Your task to perform on an android device: Open calendar and show me the fourth week of next month Image 0: 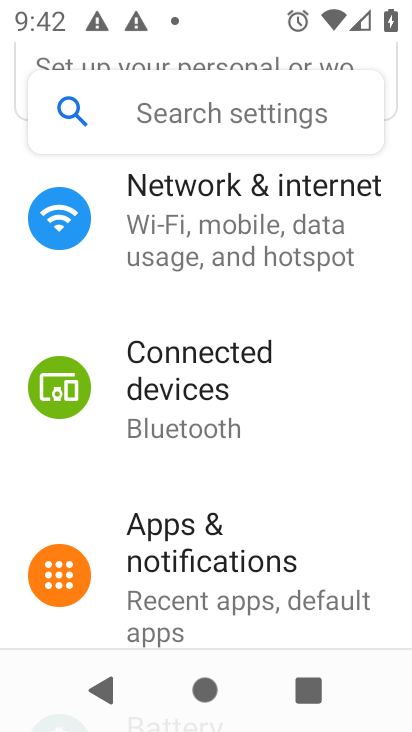
Step 0: press home button
Your task to perform on an android device: Open calendar and show me the fourth week of next month Image 1: 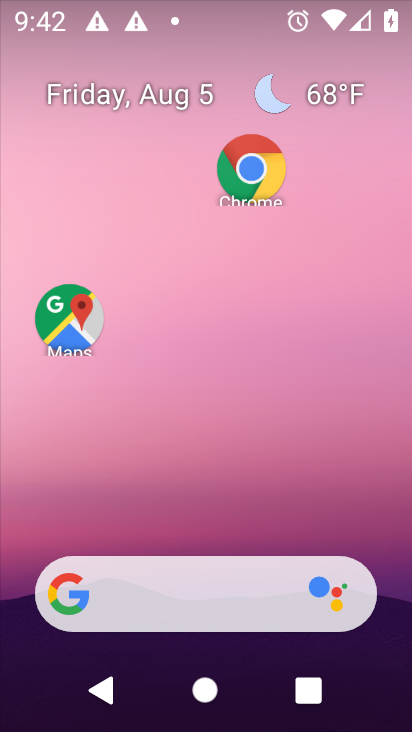
Step 1: drag from (208, 517) to (151, 128)
Your task to perform on an android device: Open calendar and show me the fourth week of next month Image 2: 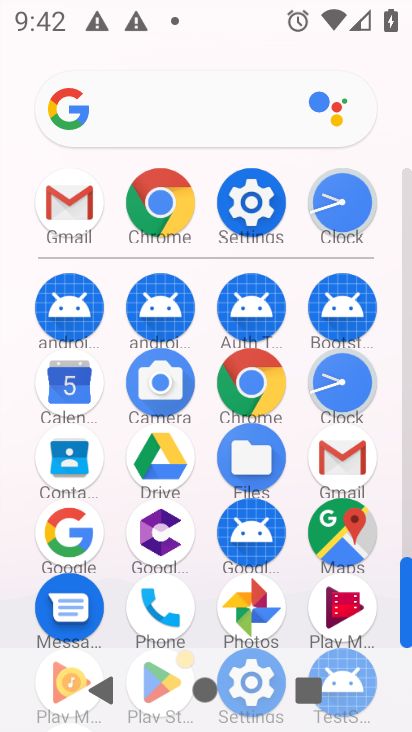
Step 2: click (81, 384)
Your task to perform on an android device: Open calendar and show me the fourth week of next month Image 3: 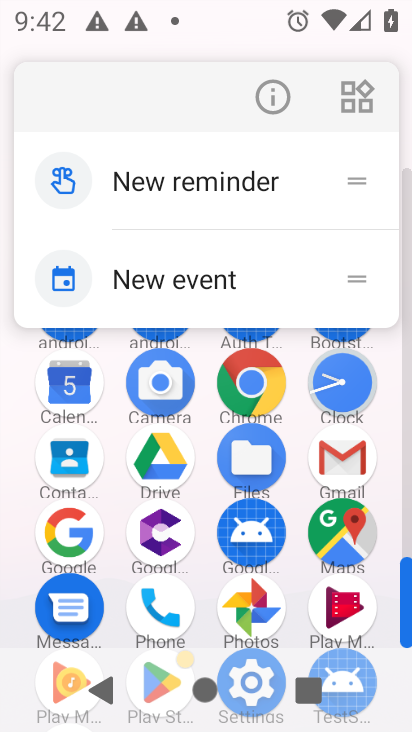
Step 3: click (82, 382)
Your task to perform on an android device: Open calendar and show me the fourth week of next month Image 4: 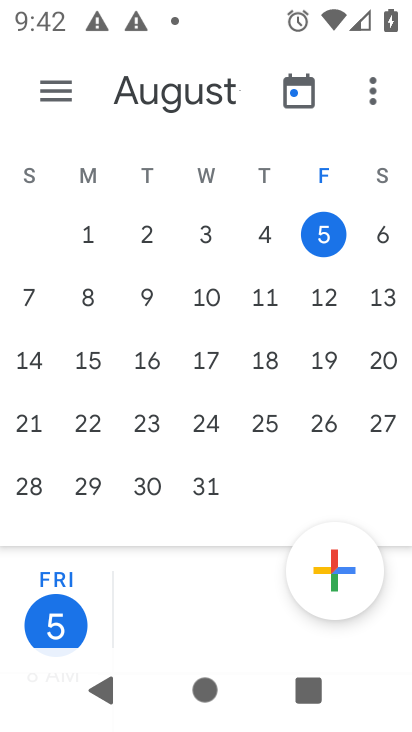
Step 4: drag from (355, 338) to (34, 341)
Your task to perform on an android device: Open calendar and show me the fourth week of next month Image 5: 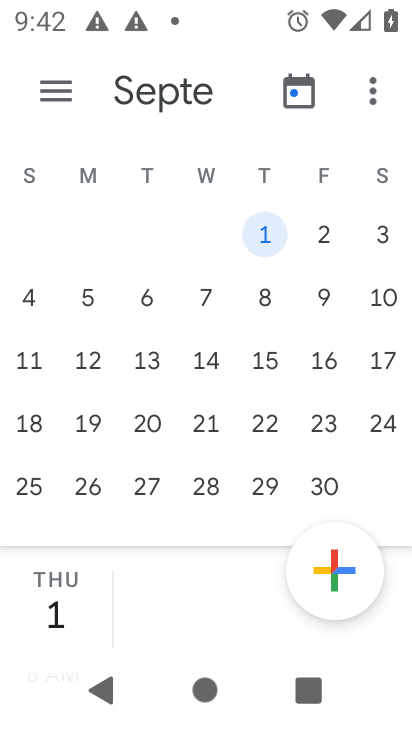
Step 5: click (31, 413)
Your task to perform on an android device: Open calendar and show me the fourth week of next month Image 6: 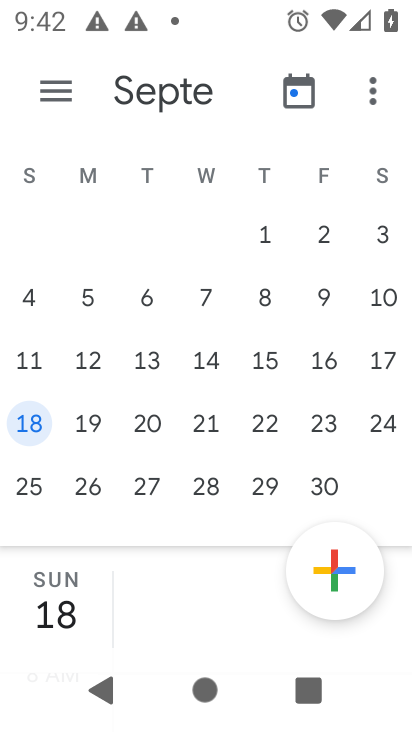
Step 6: task complete